Your task to perform on an android device: Do I have any events today? Image 0: 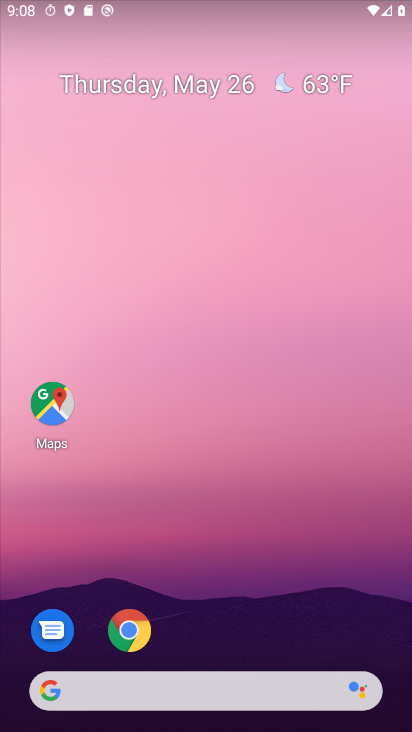
Step 0: drag from (295, 629) to (230, 354)
Your task to perform on an android device: Do I have any events today? Image 1: 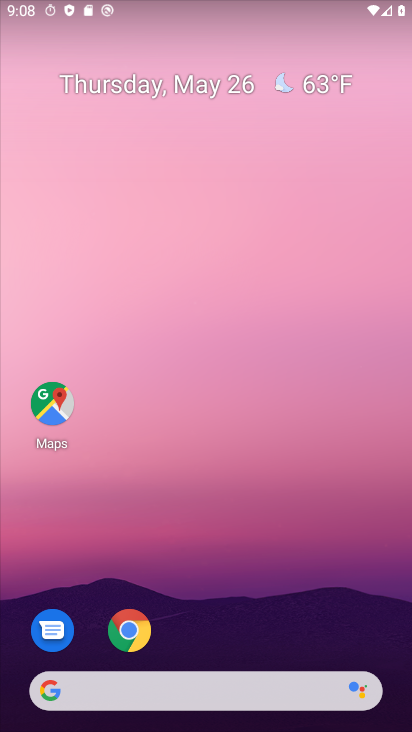
Step 1: drag from (256, 623) to (190, 139)
Your task to perform on an android device: Do I have any events today? Image 2: 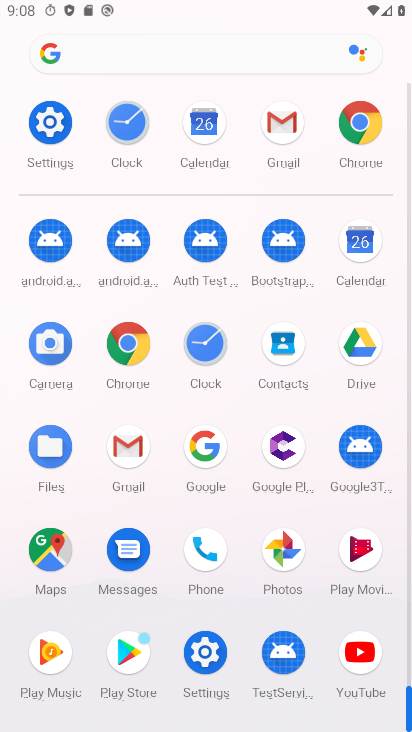
Step 2: click (356, 233)
Your task to perform on an android device: Do I have any events today? Image 3: 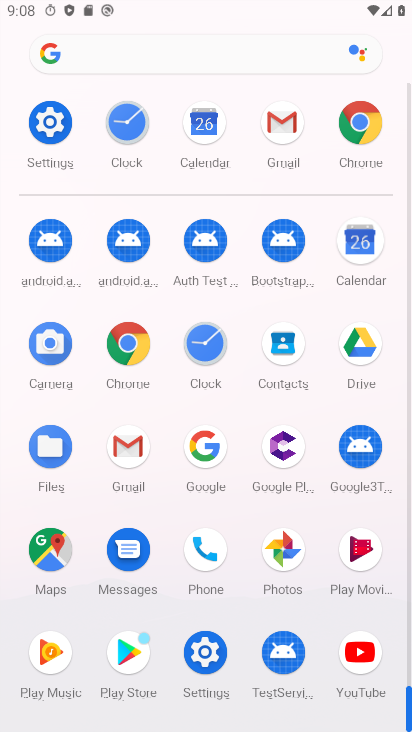
Step 3: click (358, 233)
Your task to perform on an android device: Do I have any events today? Image 4: 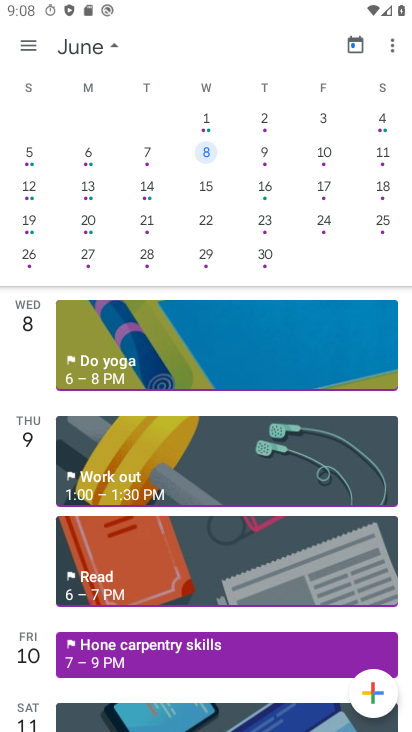
Step 4: click (358, 233)
Your task to perform on an android device: Do I have any events today? Image 5: 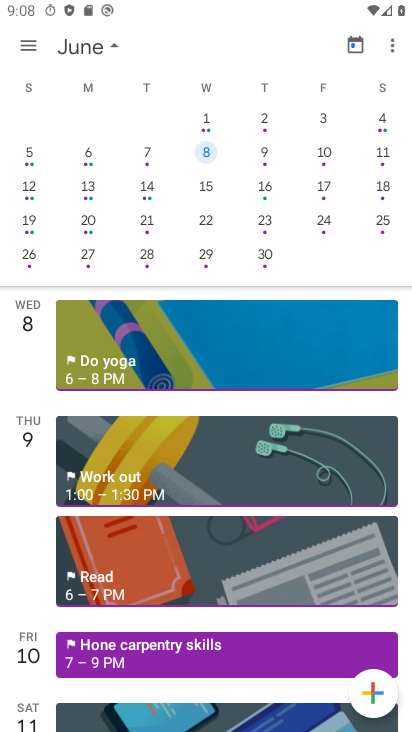
Step 5: drag from (26, 190) to (341, 204)
Your task to perform on an android device: Do I have any events today? Image 6: 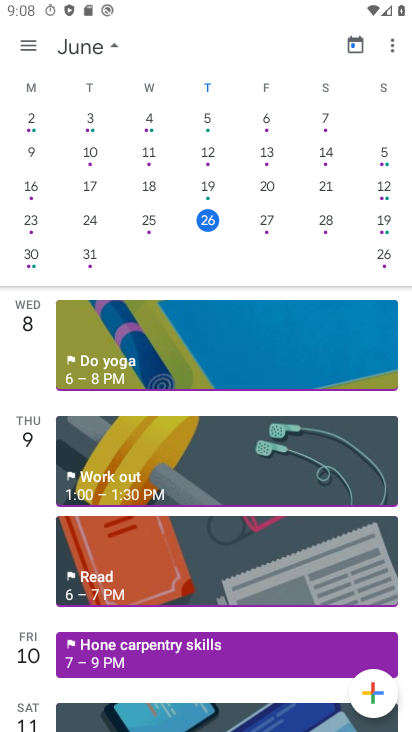
Step 6: drag from (142, 201) to (393, 233)
Your task to perform on an android device: Do I have any events today? Image 7: 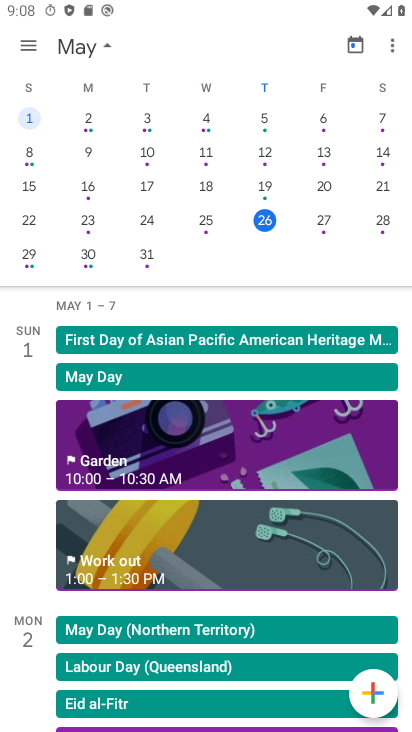
Step 7: click (316, 206)
Your task to perform on an android device: Do I have any events today? Image 8: 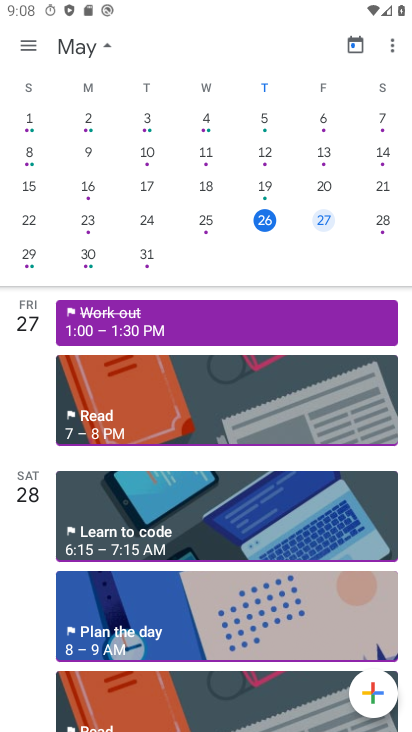
Step 8: click (321, 212)
Your task to perform on an android device: Do I have any events today? Image 9: 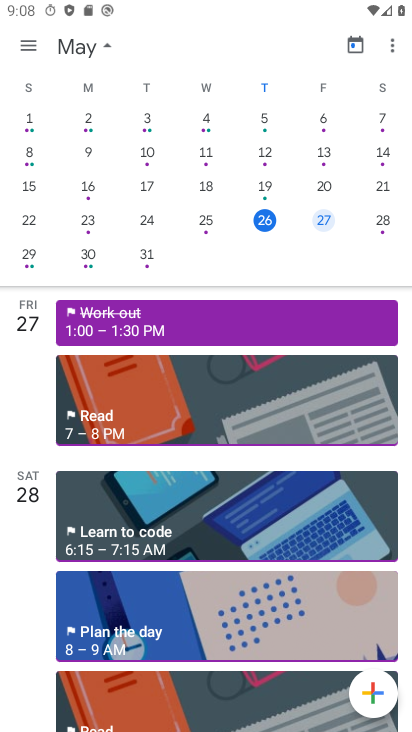
Step 9: task complete